Your task to perform on an android device: Check the news Image 0: 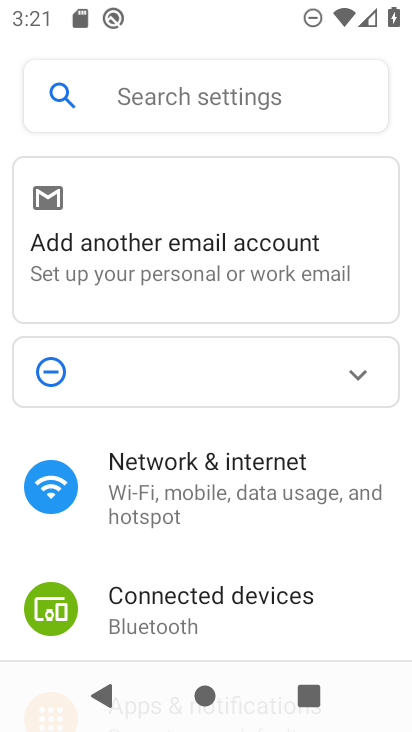
Step 0: press home button
Your task to perform on an android device: Check the news Image 1: 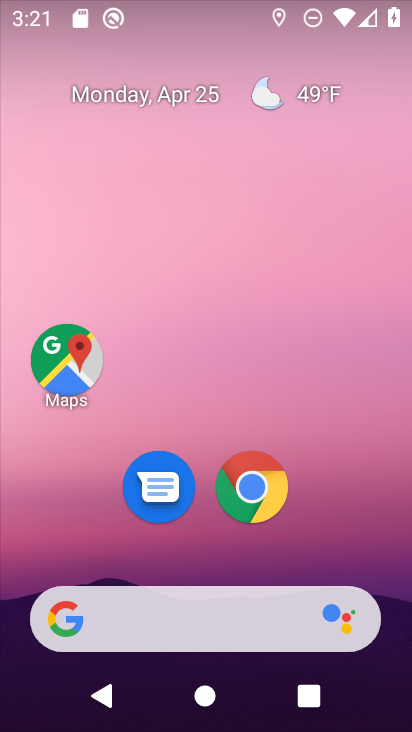
Step 1: task complete